Your task to perform on an android device: turn off airplane mode Image 0: 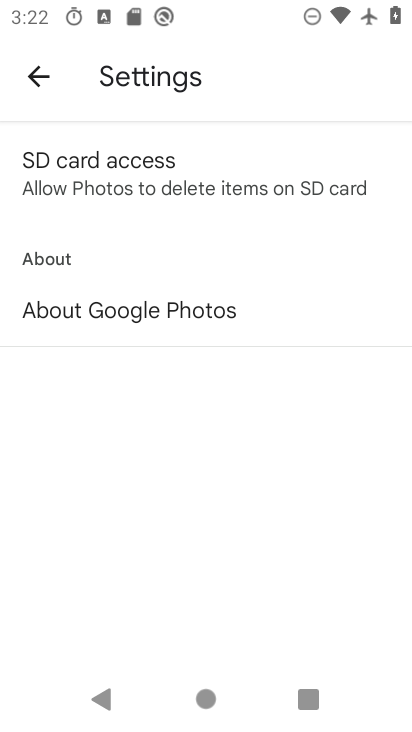
Step 0: press home button
Your task to perform on an android device: turn off airplane mode Image 1: 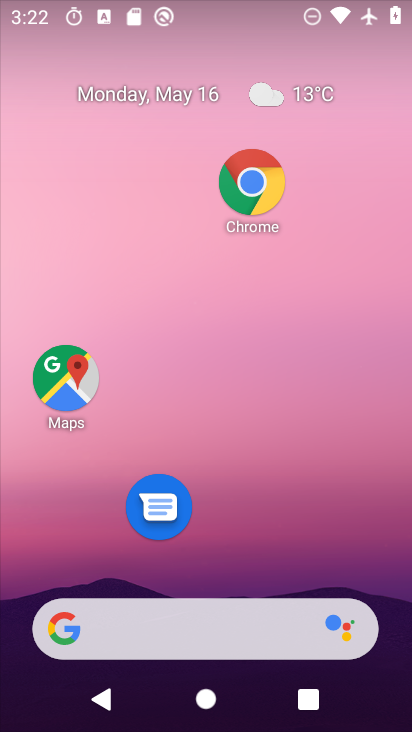
Step 1: drag from (238, 575) to (210, 63)
Your task to perform on an android device: turn off airplane mode Image 2: 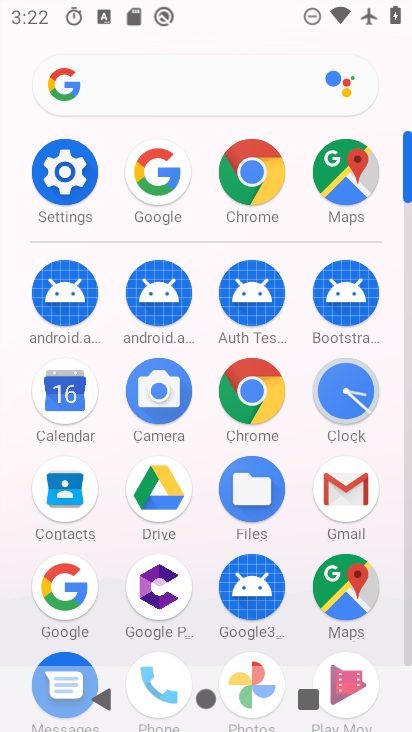
Step 2: click (61, 185)
Your task to perform on an android device: turn off airplane mode Image 3: 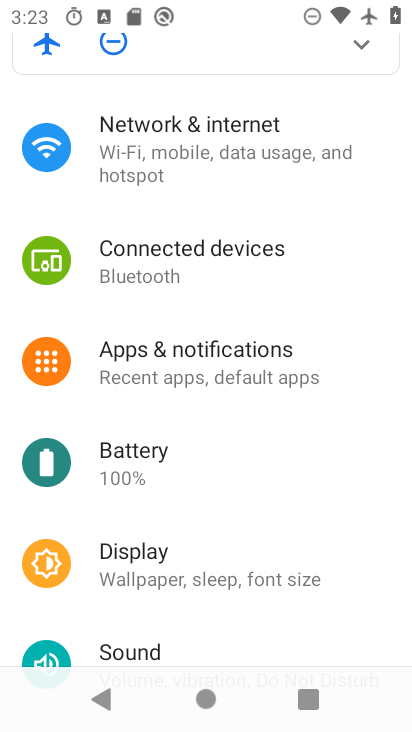
Step 3: click (303, 173)
Your task to perform on an android device: turn off airplane mode Image 4: 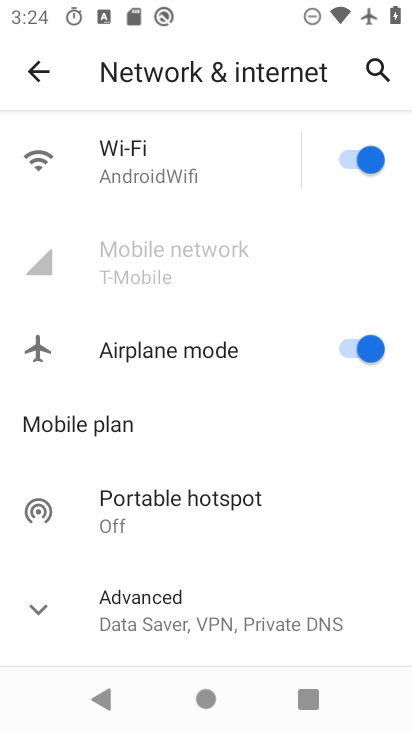
Step 4: click (365, 341)
Your task to perform on an android device: turn off airplane mode Image 5: 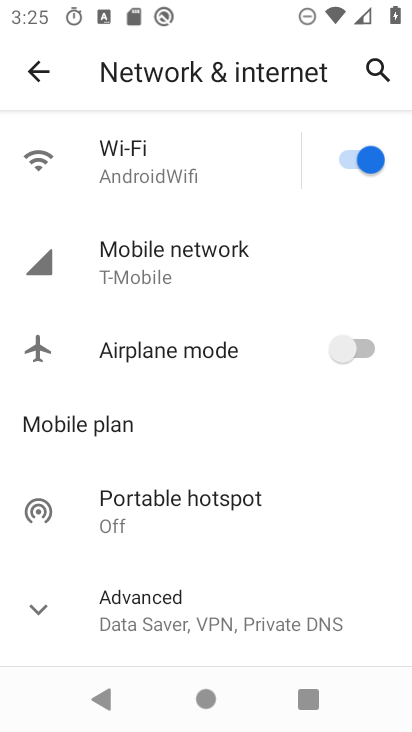
Step 5: task complete